Your task to perform on an android device: Go to Amazon Image 0: 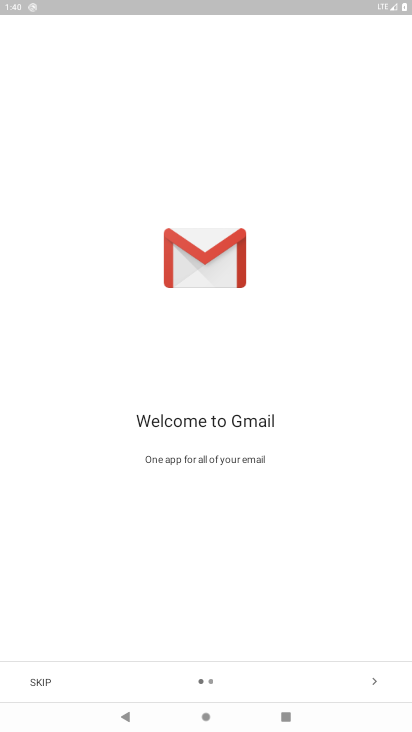
Step 0: press home button
Your task to perform on an android device: Go to Amazon Image 1: 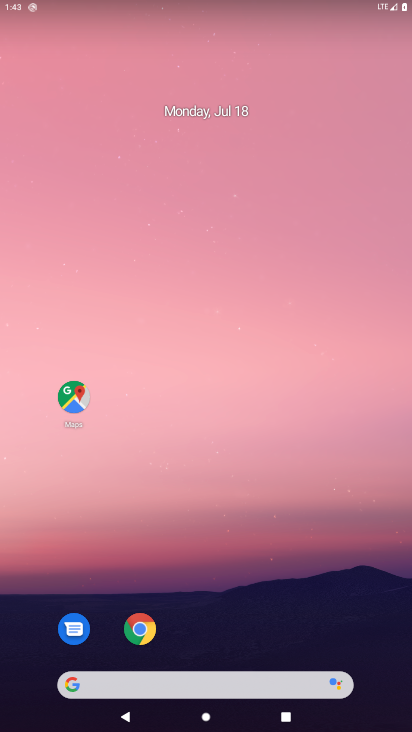
Step 1: click (142, 685)
Your task to perform on an android device: Go to Amazon Image 2: 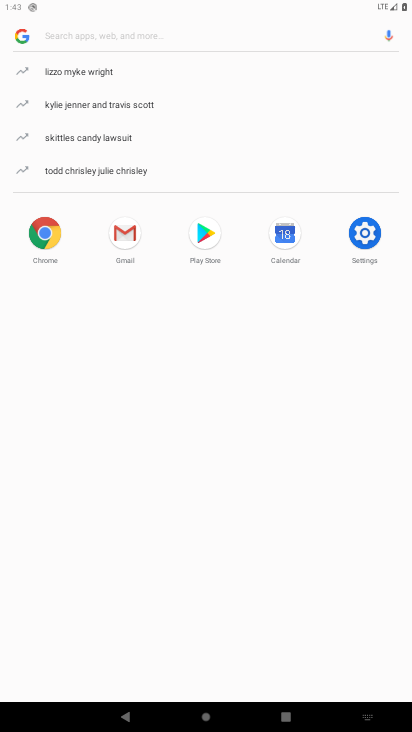
Step 2: type "Amazon"
Your task to perform on an android device: Go to Amazon Image 3: 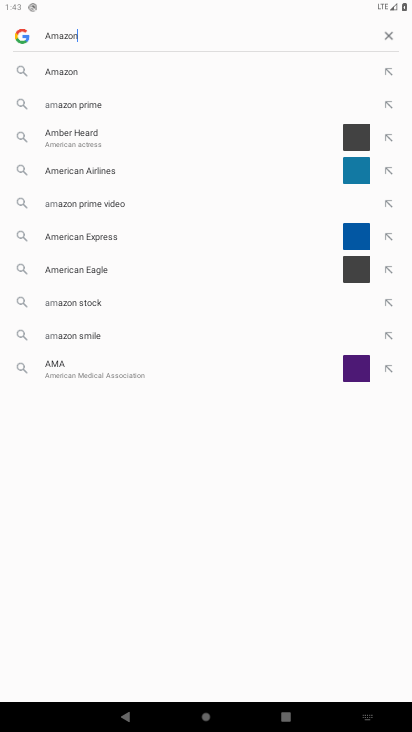
Step 3: type ""
Your task to perform on an android device: Go to Amazon Image 4: 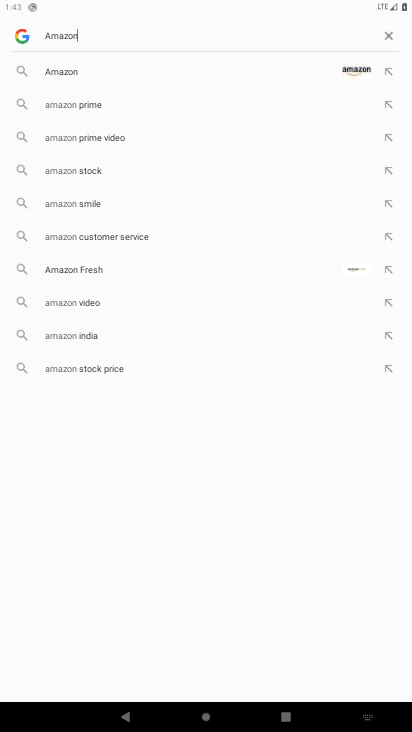
Step 4: press enter
Your task to perform on an android device: Go to Amazon Image 5: 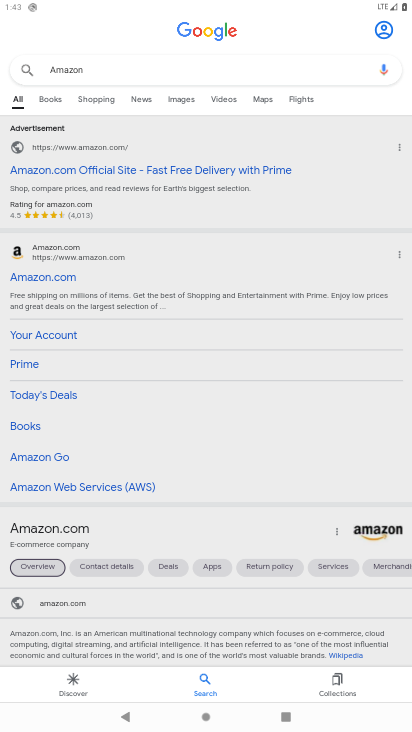
Step 5: task complete